Your task to perform on an android device: Open display settings Image 0: 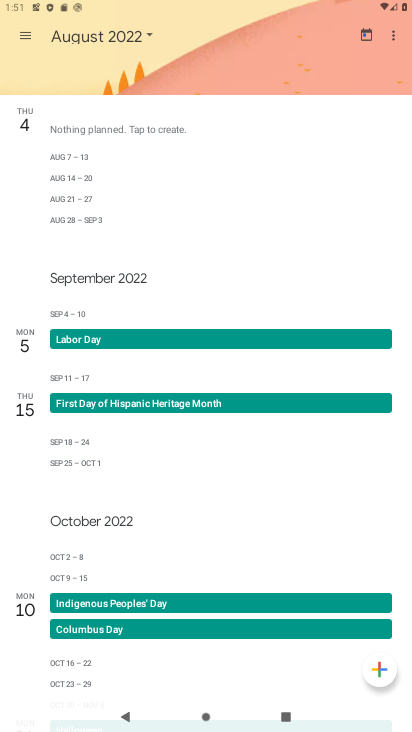
Step 0: press home button
Your task to perform on an android device: Open display settings Image 1: 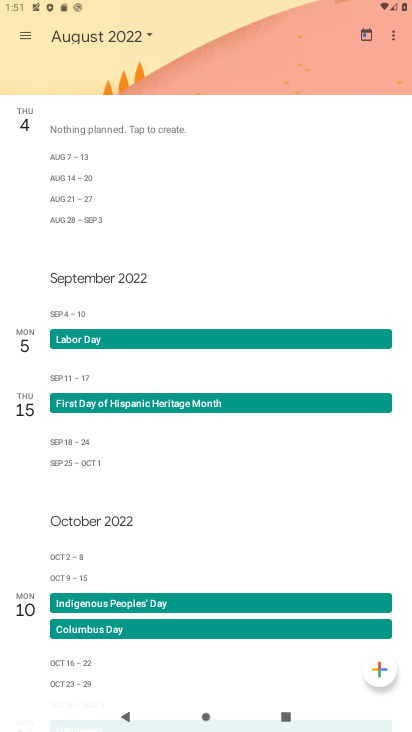
Step 1: press home button
Your task to perform on an android device: Open display settings Image 2: 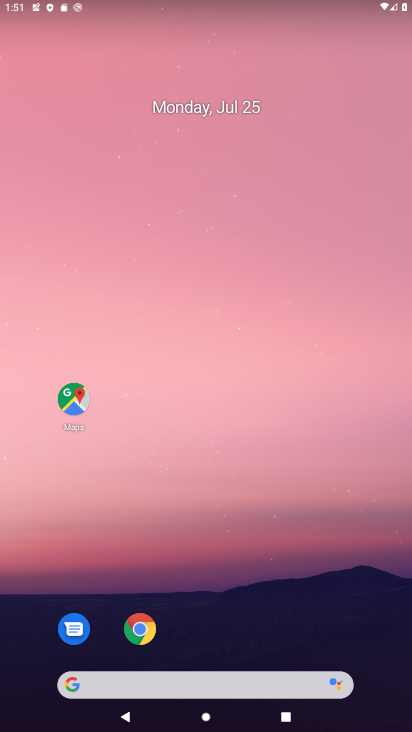
Step 2: drag from (189, 659) to (272, 158)
Your task to perform on an android device: Open display settings Image 3: 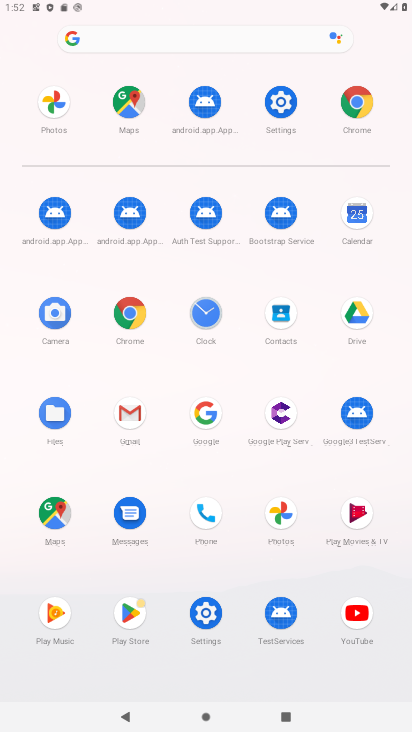
Step 3: click (117, 37)
Your task to perform on an android device: Open display settings Image 4: 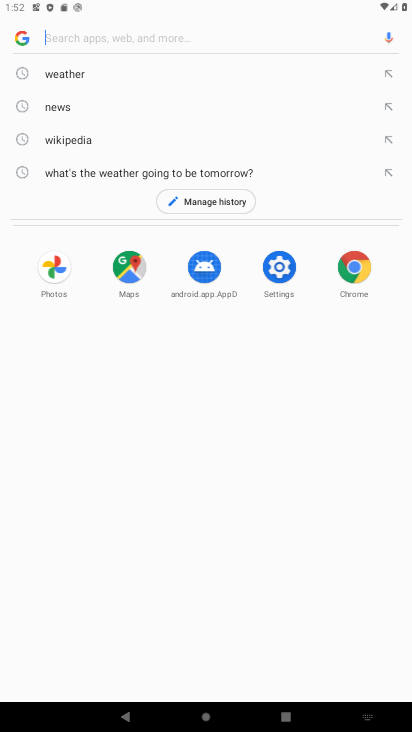
Step 4: press home button
Your task to perform on an android device: Open display settings Image 5: 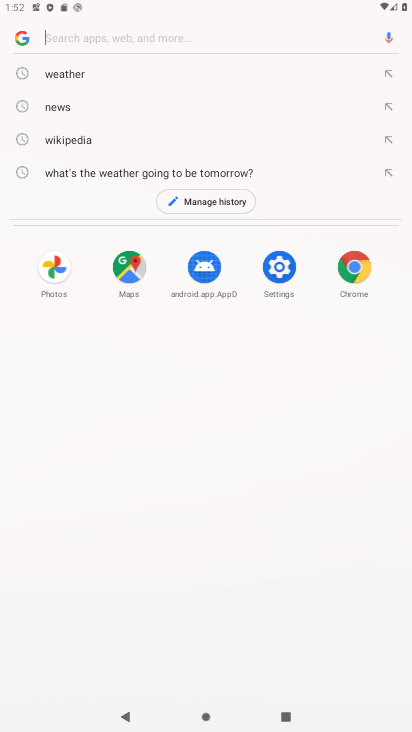
Step 5: press home button
Your task to perform on an android device: Open display settings Image 6: 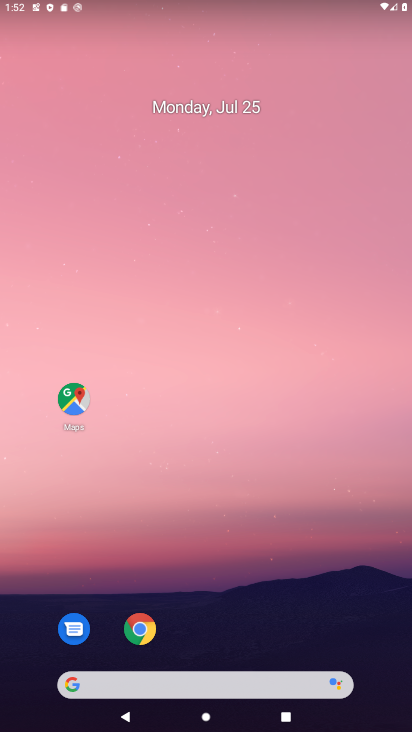
Step 6: drag from (166, 556) to (304, 18)
Your task to perform on an android device: Open display settings Image 7: 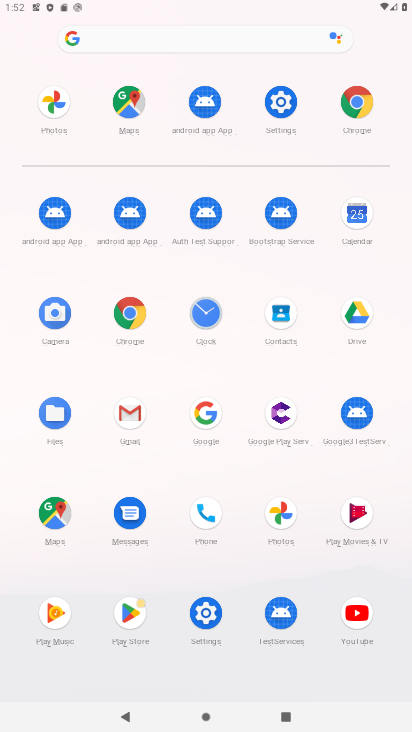
Step 7: click (212, 619)
Your task to perform on an android device: Open display settings Image 8: 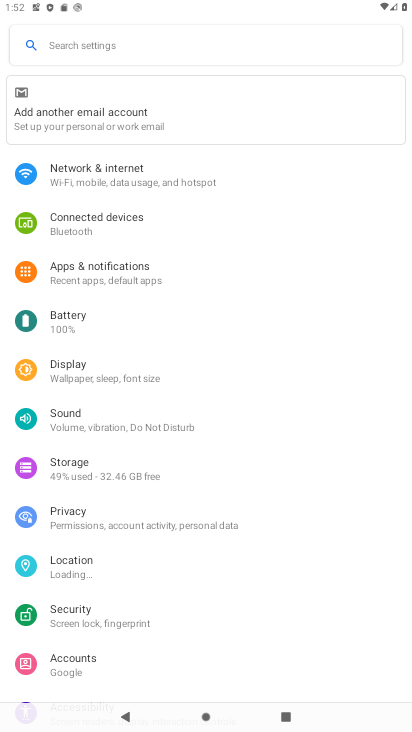
Step 8: click (213, 626)
Your task to perform on an android device: Open display settings Image 9: 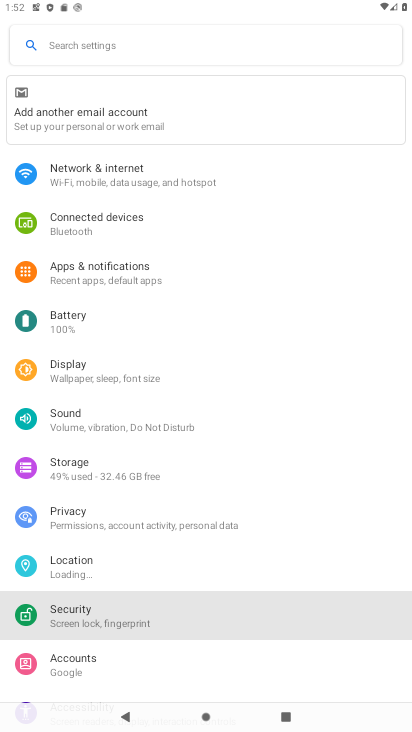
Step 9: drag from (213, 622) to (358, 206)
Your task to perform on an android device: Open display settings Image 10: 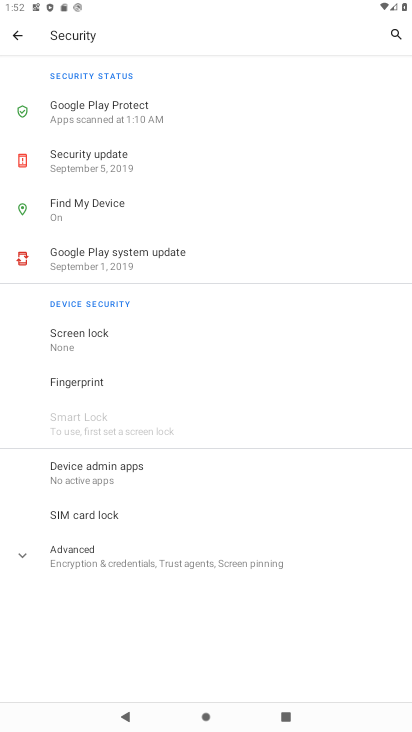
Step 10: click (26, 43)
Your task to perform on an android device: Open display settings Image 11: 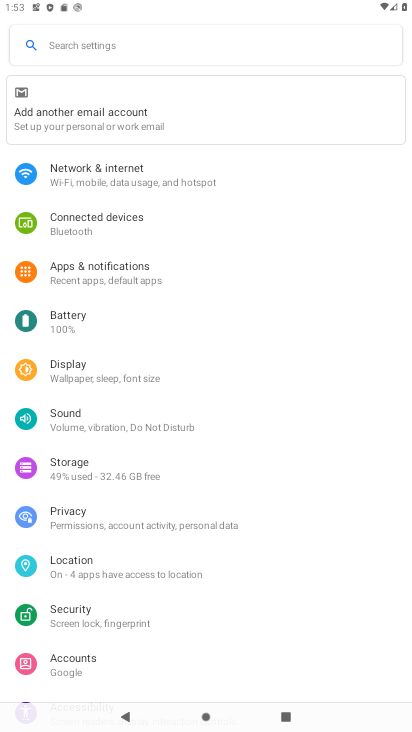
Step 11: click (95, 371)
Your task to perform on an android device: Open display settings Image 12: 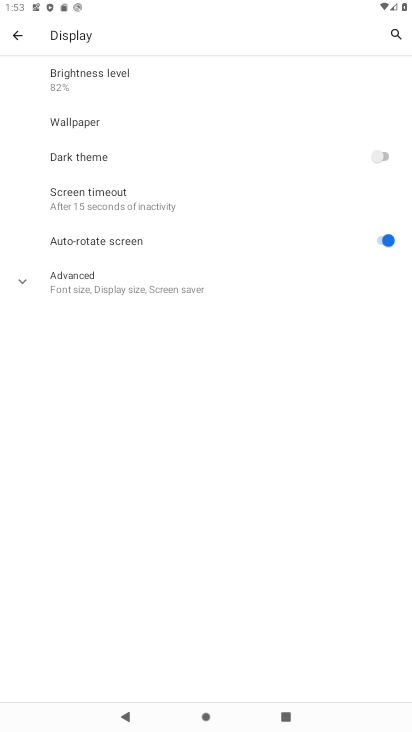
Step 12: task complete